Your task to perform on an android device: Set the phone to "Do not disturb". Image 0: 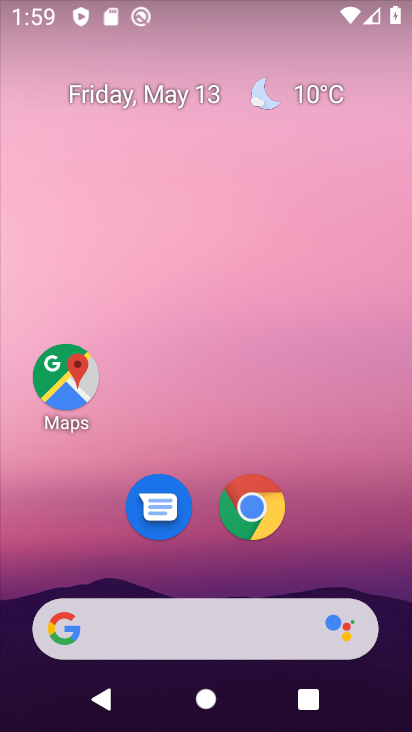
Step 0: drag from (308, 489) to (247, 92)
Your task to perform on an android device: Set the phone to "Do not disturb". Image 1: 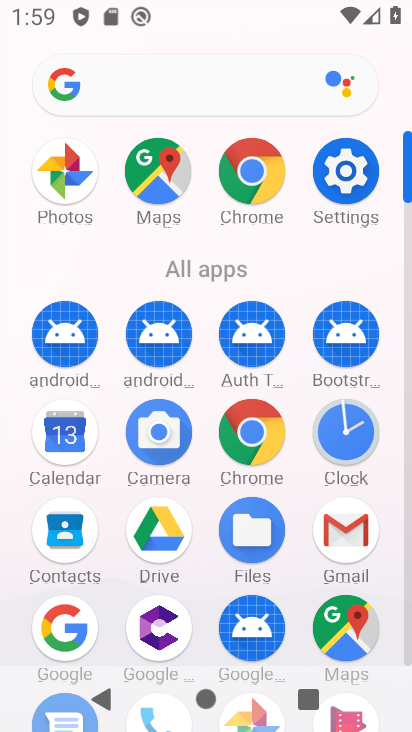
Step 1: click (324, 178)
Your task to perform on an android device: Set the phone to "Do not disturb". Image 2: 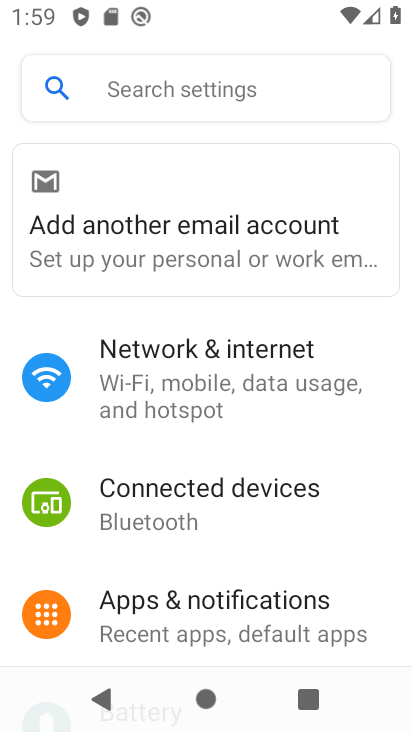
Step 2: drag from (174, 525) to (173, 152)
Your task to perform on an android device: Set the phone to "Do not disturb". Image 3: 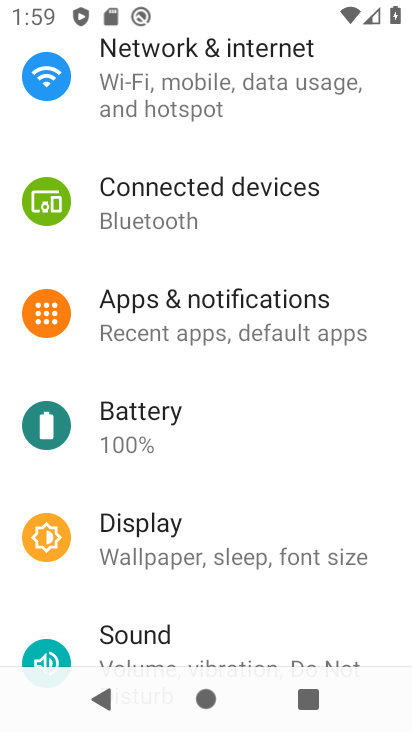
Step 3: drag from (187, 580) to (176, 230)
Your task to perform on an android device: Set the phone to "Do not disturb". Image 4: 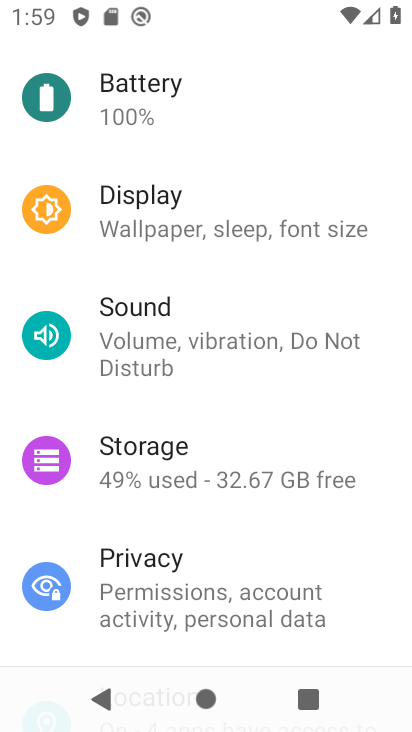
Step 4: click (100, 298)
Your task to perform on an android device: Set the phone to "Do not disturb". Image 5: 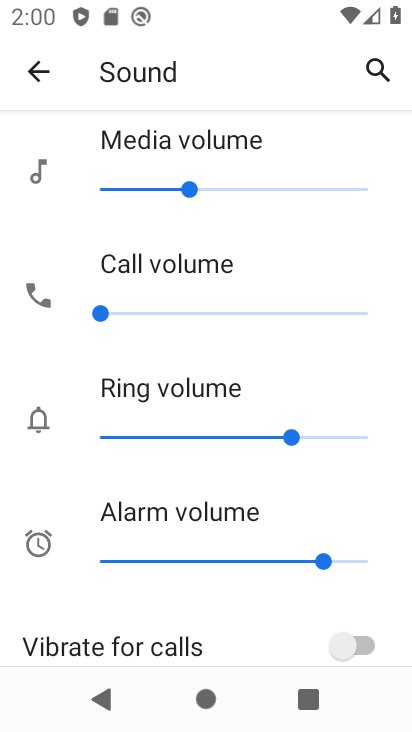
Step 5: drag from (164, 554) to (140, 228)
Your task to perform on an android device: Set the phone to "Do not disturb". Image 6: 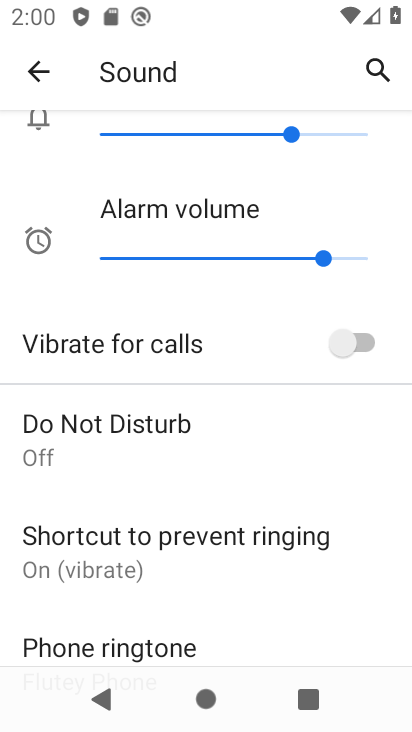
Step 6: click (72, 420)
Your task to perform on an android device: Set the phone to "Do not disturb". Image 7: 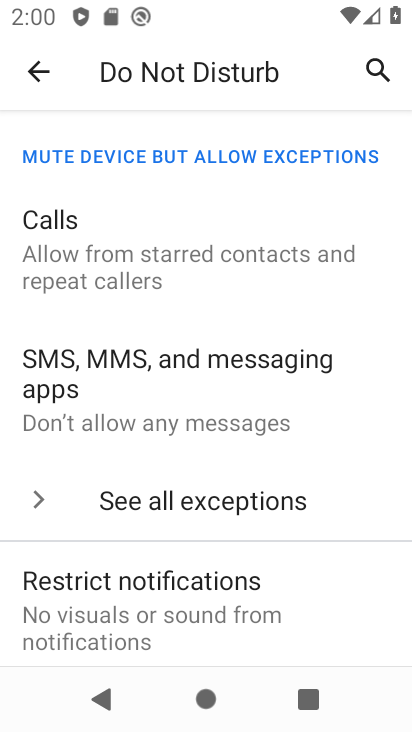
Step 7: drag from (139, 621) to (128, 178)
Your task to perform on an android device: Set the phone to "Do not disturb". Image 8: 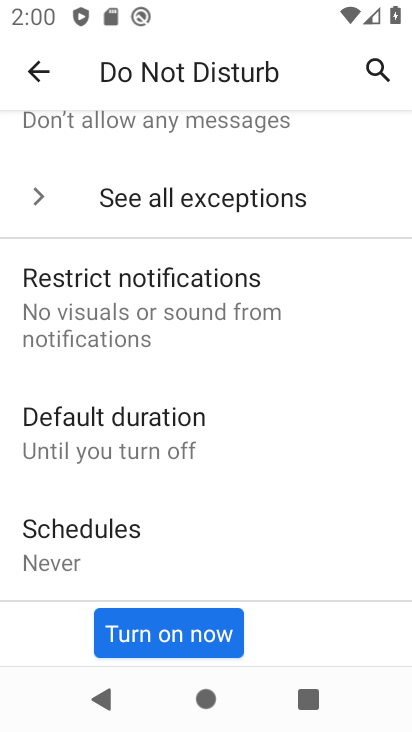
Step 8: click (217, 646)
Your task to perform on an android device: Set the phone to "Do not disturb". Image 9: 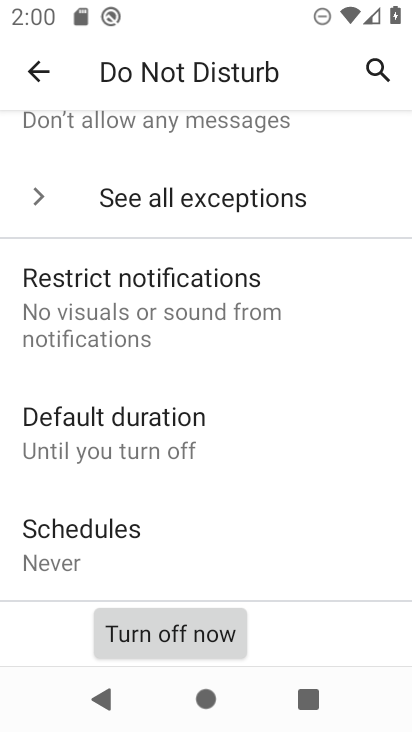
Step 9: task complete